Your task to perform on an android device: turn off location history Image 0: 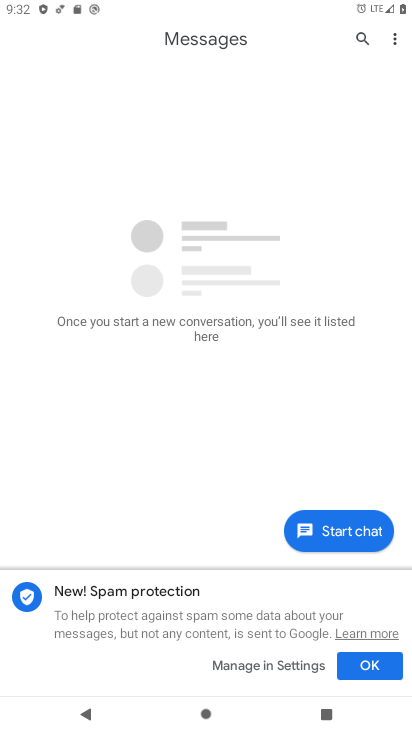
Step 0: press home button
Your task to perform on an android device: turn off location history Image 1: 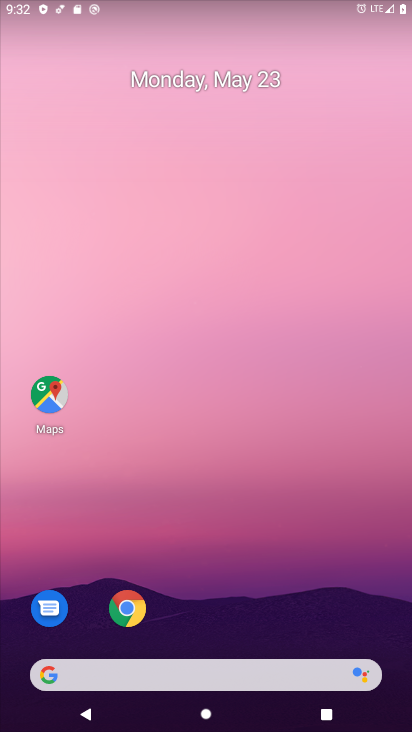
Step 1: drag from (249, 596) to (241, 191)
Your task to perform on an android device: turn off location history Image 2: 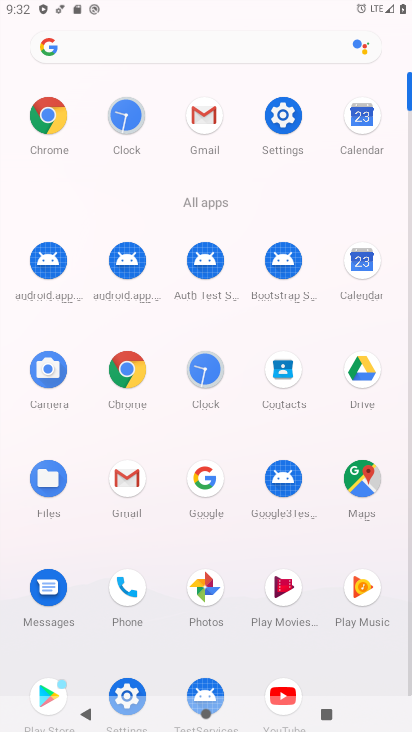
Step 2: click (373, 498)
Your task to perform on an android device: turn off location history Image 3: 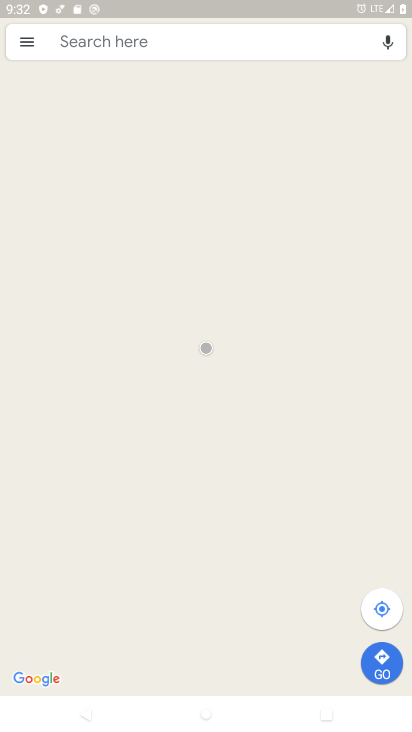
Step 3: click (24, 39)
Your task to perform on an android device: turn off location history Image 4: 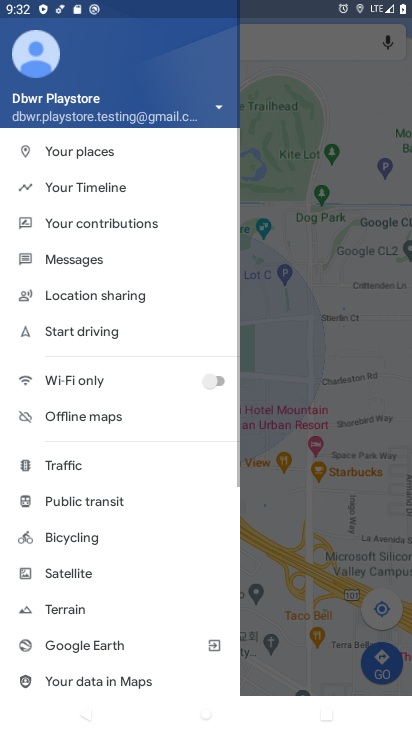
Step 4: click (31, 42)
Your task to perform on an android device: turn off location history Image 5: 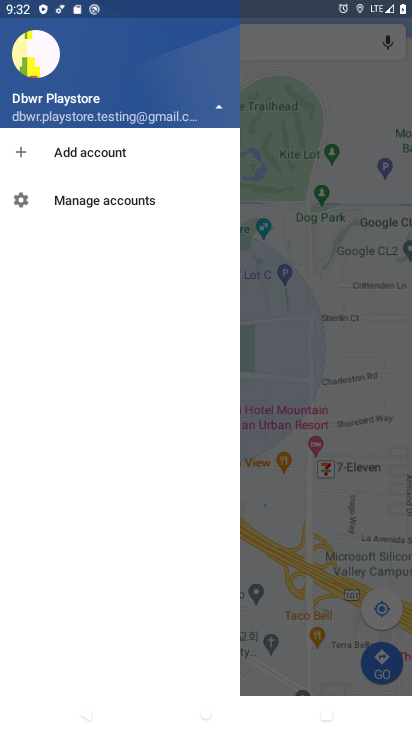
Step 5: click (42, 59)
Your task to perform on an android device: turn off location history Image 6: 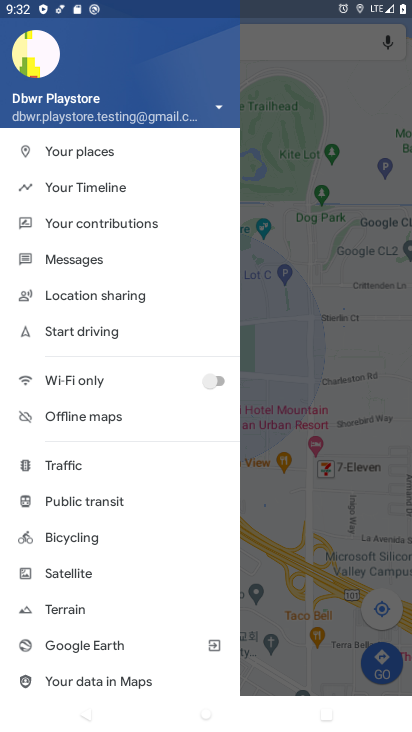
Step 6: click (82, 191)
Your task to perform on an android device: turn off location history Image 7: 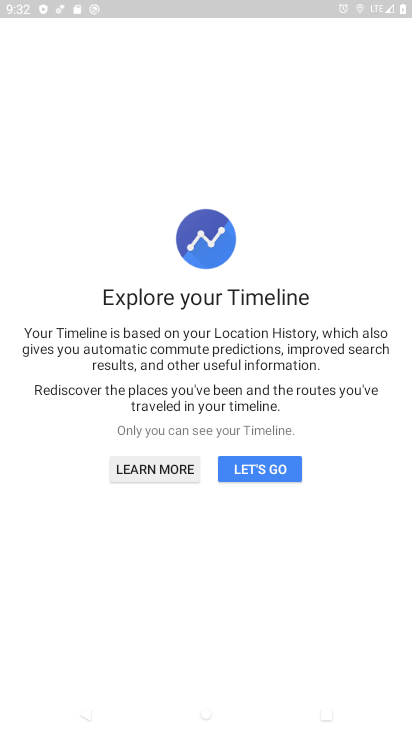
Step 7: click (253, 475)
Your task to perform on an android device: turn off location history Image 8: 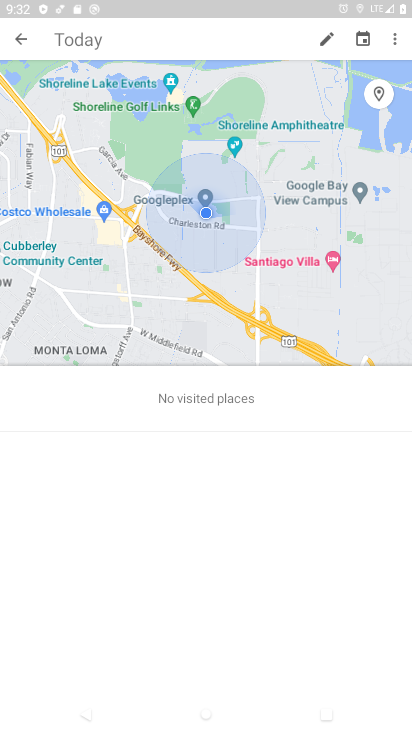
Step 8: click (398, 35)
Your task to perform on an android device: turn off location history Image 9: 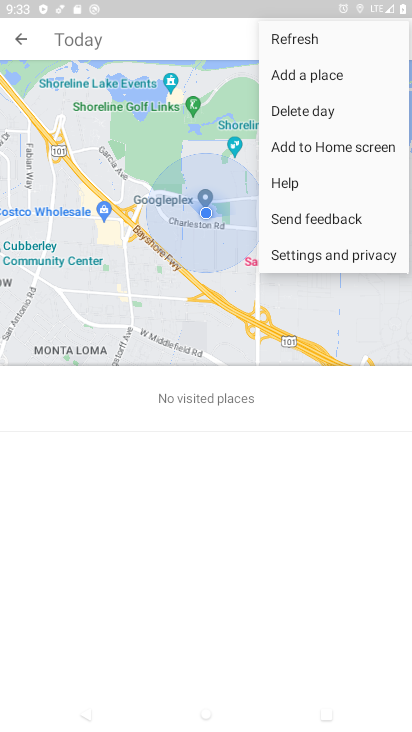
Step 9: click (364, 254)
Your task to perform on an android device: turn off location history Image 10: 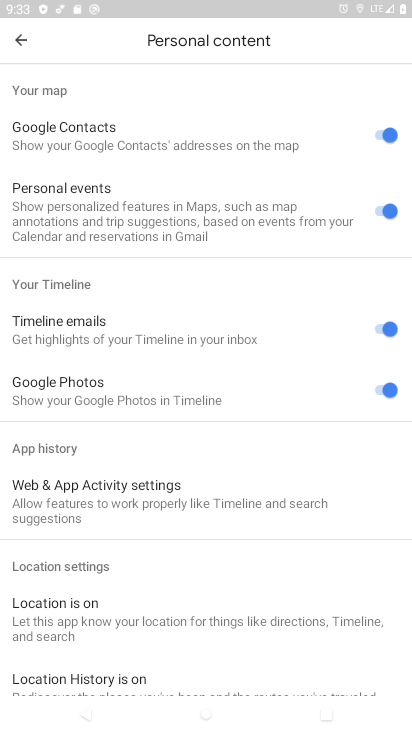
Step 10: drag from (192, 656) to (169, 357)
Your task to perform on an android device: turn off location history Image 11: 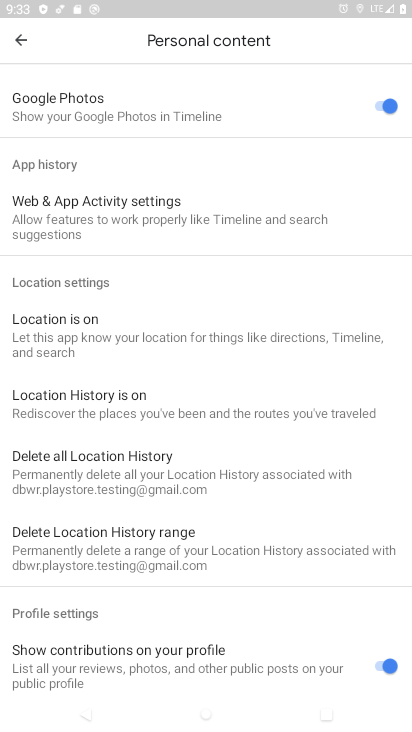
Step 11: click (155, 415)
Your task to perform on an android device: turn off location history Image 12: 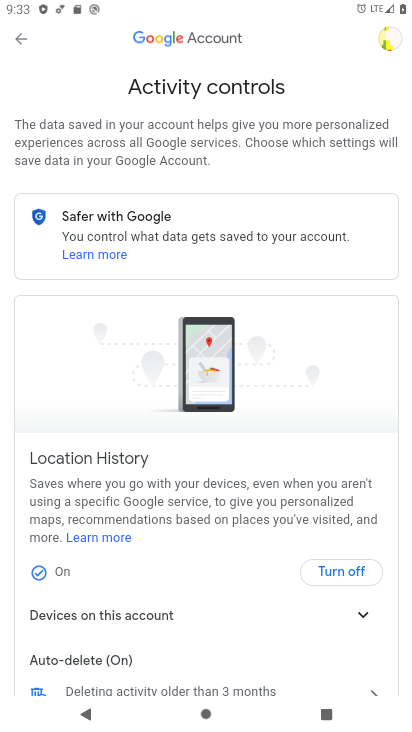
Step 12: click (323, 573)
Your task to perform on an android device: turn off location history Image 13: 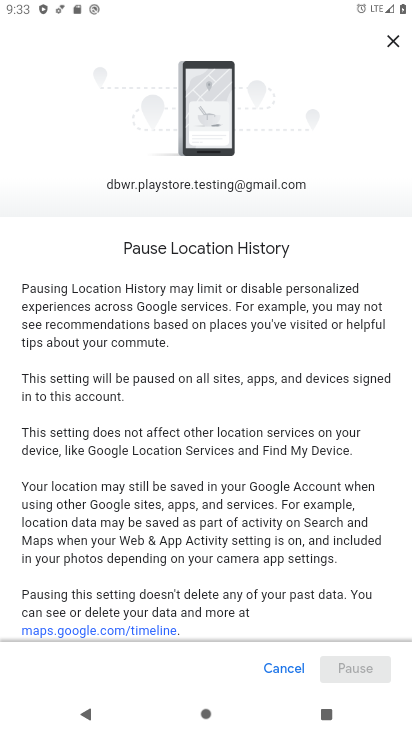
Step 13: drag from (331, 620) to (304, 209)
Your task to perform on an android device: turn off location history Image 14: 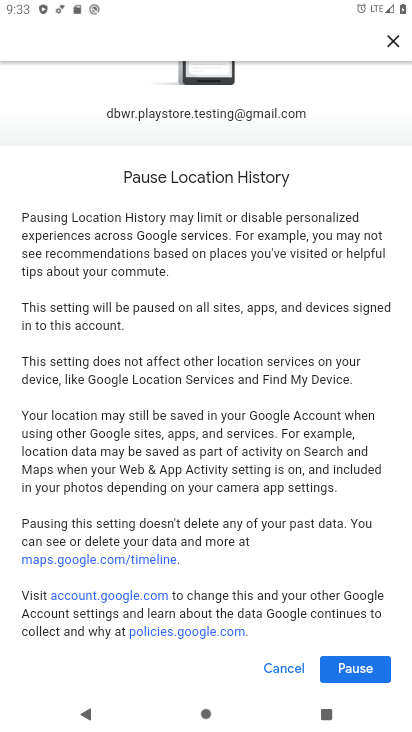
Step 14: click (371, 672)
Your task to perform on an android device: turn off location history Image 15: 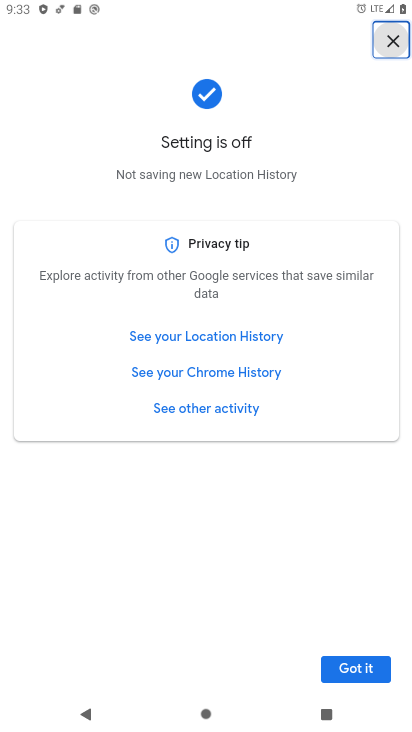
Step 15: click (348, 668)
Your task to perform on an android device: turn off location history Image 16: 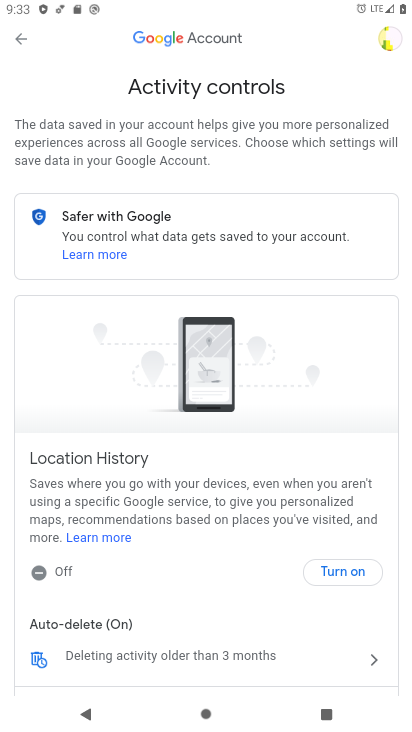
Step 16: task complete